Your task to perform on an android device: turn pop-ups on in chrome Image 0: 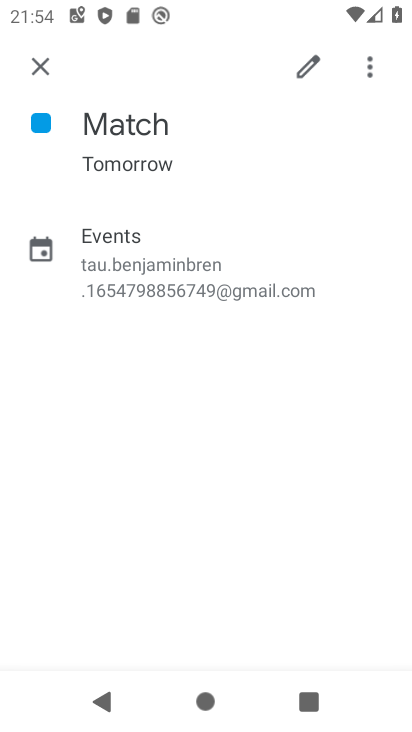
Step 0: press home button
Your task to perform on an android device: turn pop-ups on in chrome Image 1: 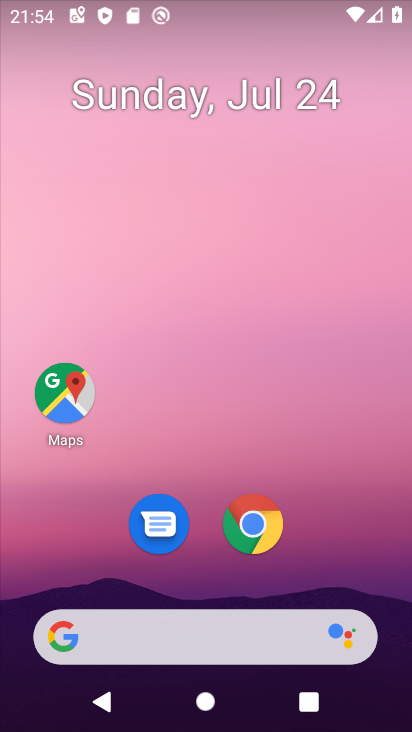
Step 1: click (242, 526)
Your task to perform on an android device: turn pop-ups on in chrome Image 2: 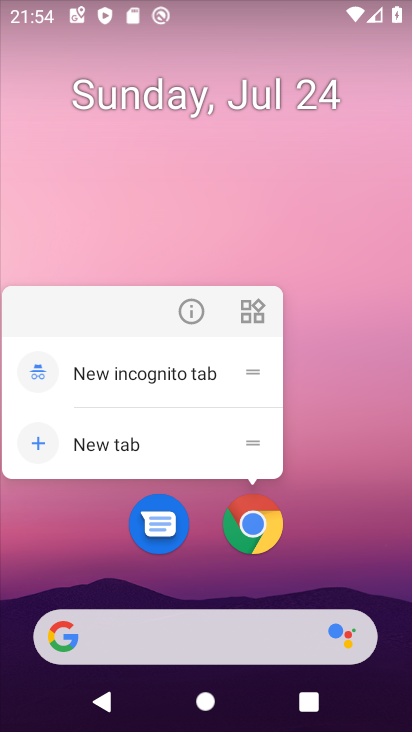
Step 2: click (242, 526)
Your task to perform on an android device: turn pop-ups on in chrome Image 3: 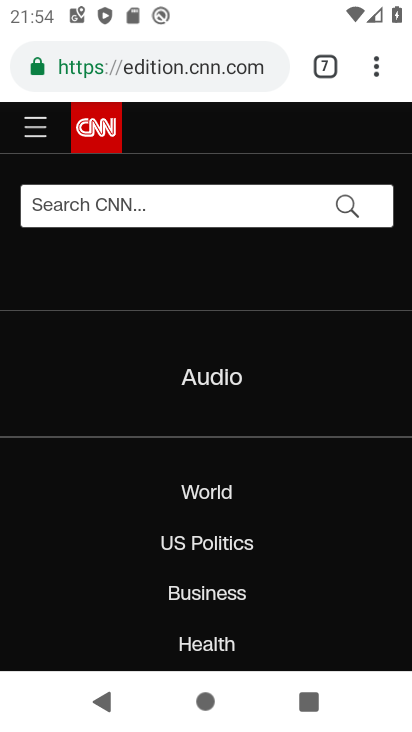
Step 3: drag from (377, 77) to (181, 553)
Your task to perform on an android device: turn pop-ups on in chrome Image 4: 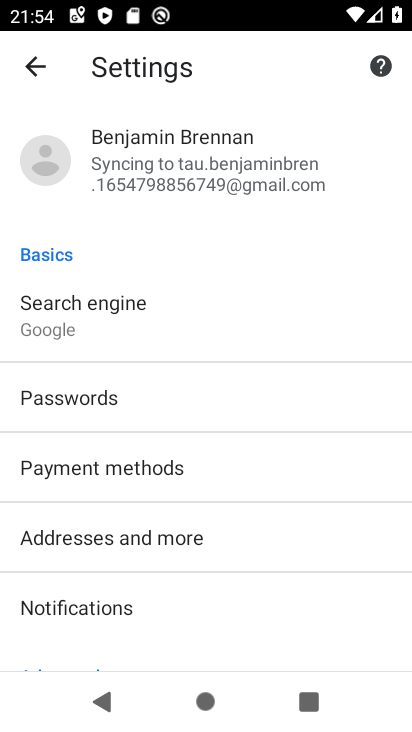
Step 4: drag from (138, 520) to (324, 131)
Your task to perform on an android device: turn pop-ups on in chrome Image 5: 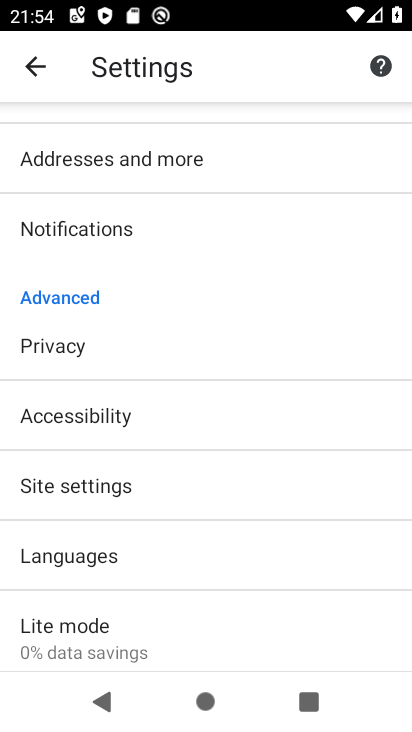
Step 5: click (93, 492)
Your task to perform on an android device: turn pop-ups on in chrome Image 6: 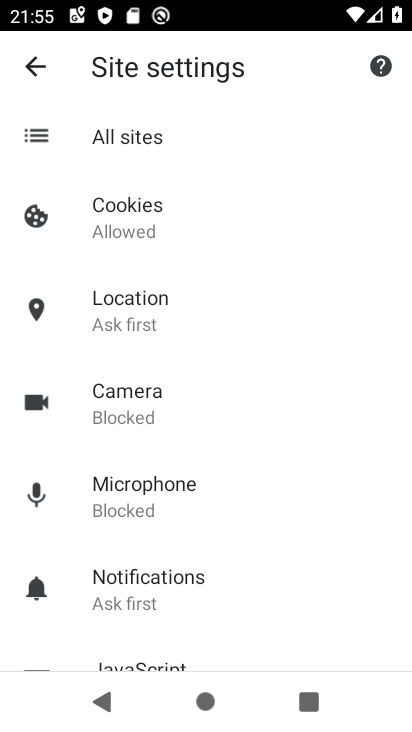
Step 6: drag from (225, 619) to (335, 133)
Your task to perform on an android device: turn pop-ups on in chrome Image 7: 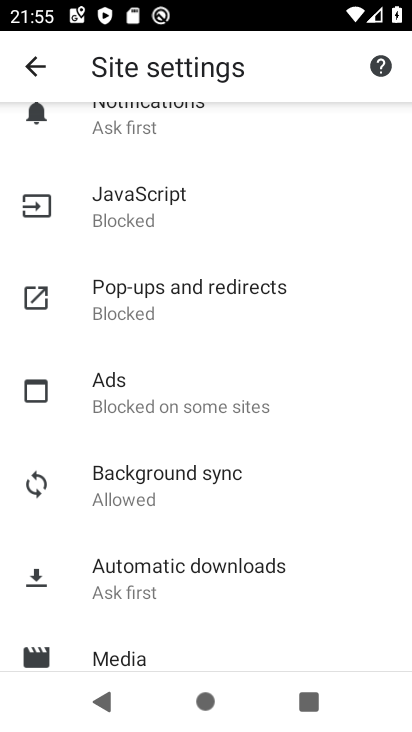
Step 7: click (207, 304)
Your task to perform on an android device: turn pop-ups on in chrome Image 8: 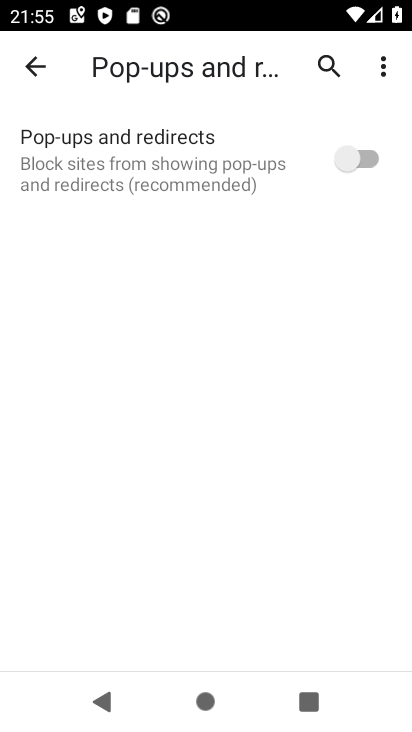
Step 8: click (364, 166)
Your task to perform on an android device: turn pop-ups on in chrome Image 9: 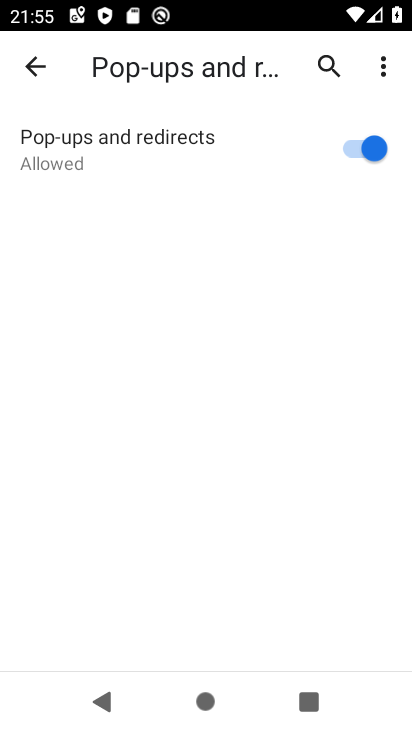
Step 9: task complete